Your task to perform on an android device: add a contact in the contacts app Image 0: 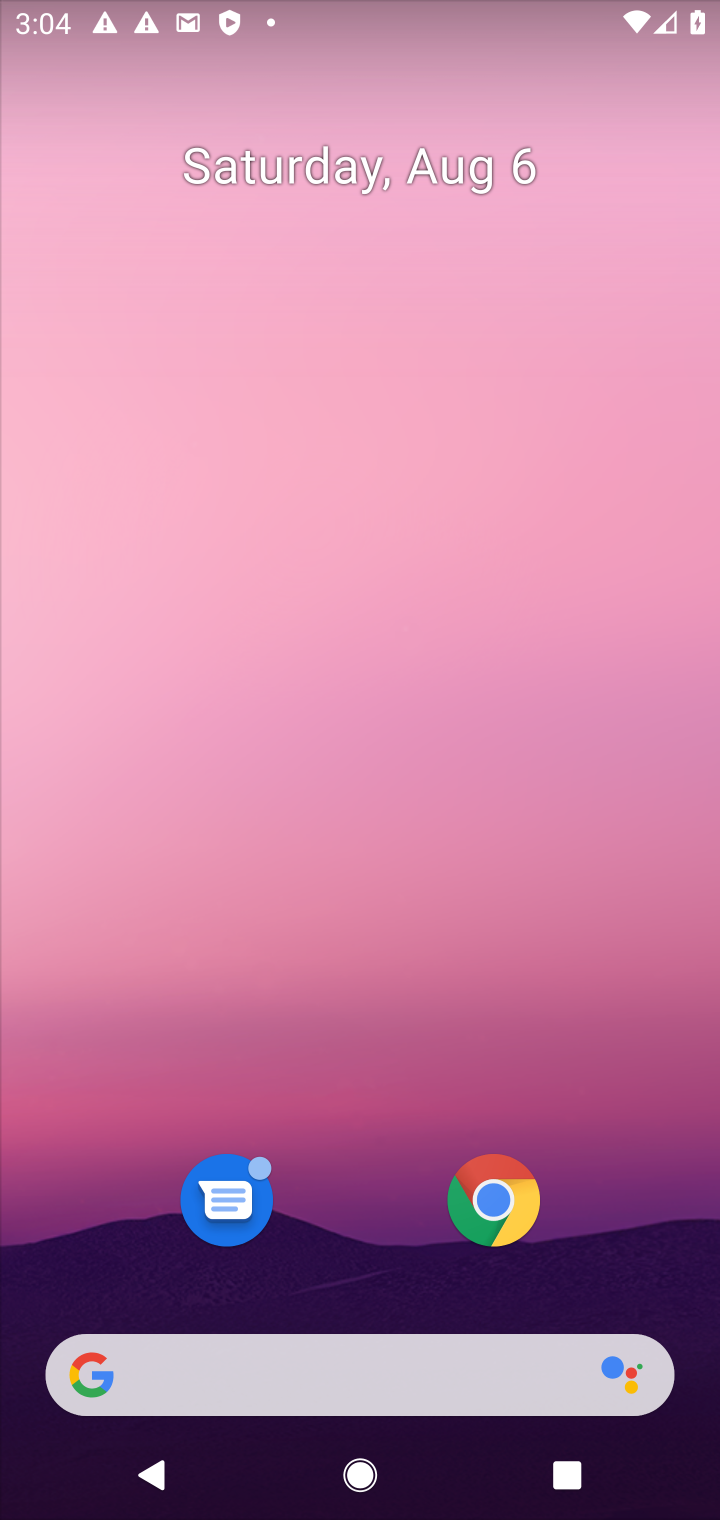
Step 0: drag from (342, 1019) to (445, 365)
Your task to perform on an android device: add a contact in the contacts app Image 1: 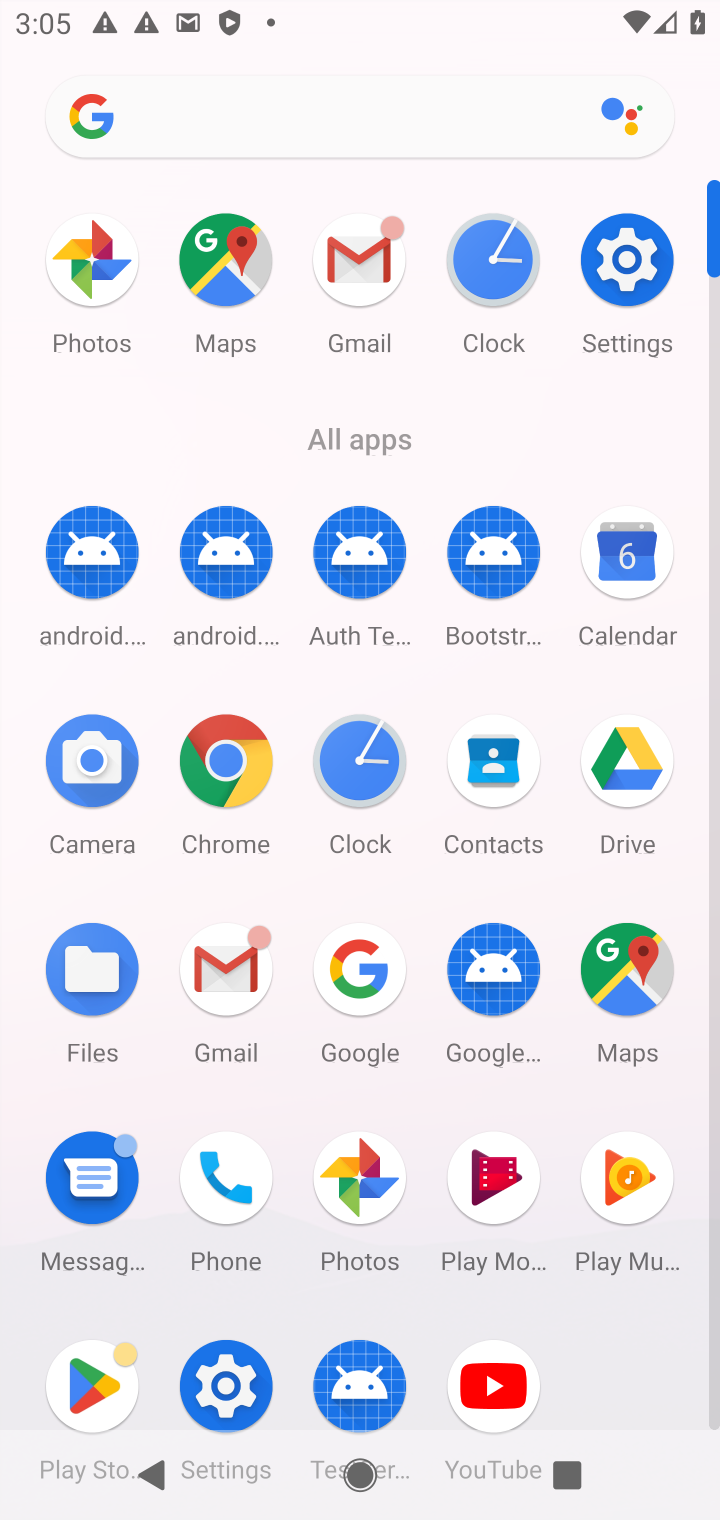
Step 1: task complete